Your task to perform on an android device: turn on improve location accuracy Image 0: 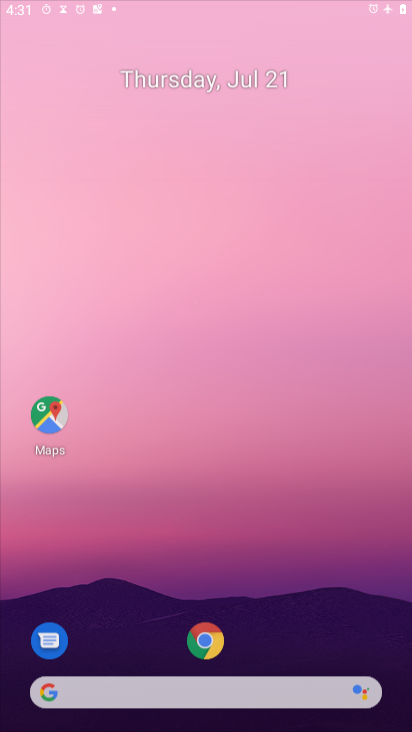
Step 0: press home button
Your task to perform on an android device: turn on improve location accuracy Image 1: 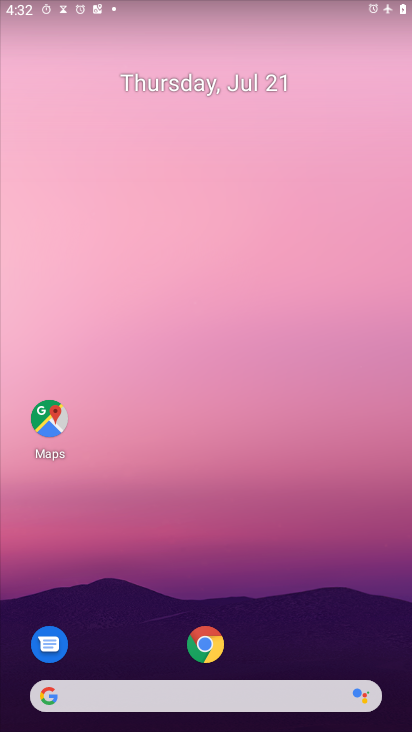
Step 1: drag from (281, 667) to (338, 167)
Your task to perform on an android device: turn on improve location accuracy Image 2: 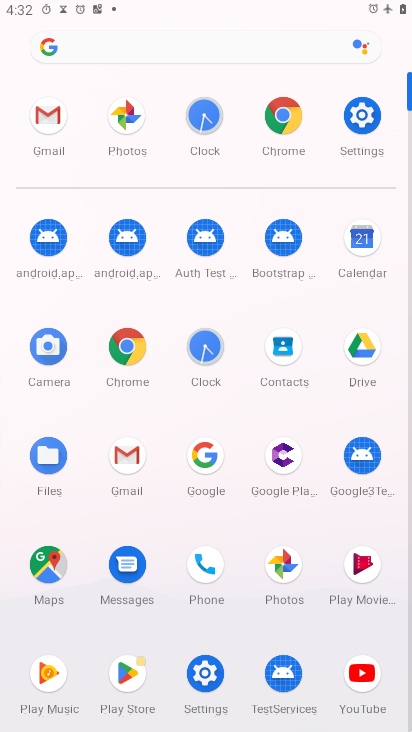
Step 2: click (350, 115)
Your task to perform on an android device: turn on improve location accuracy Image 3: 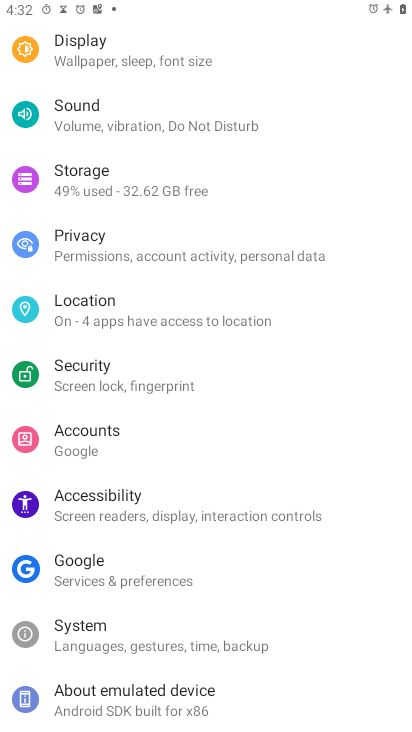
Step 3: click (84, 316)
Your task to perform on an android device: turn on improve location accuracy Image 4: 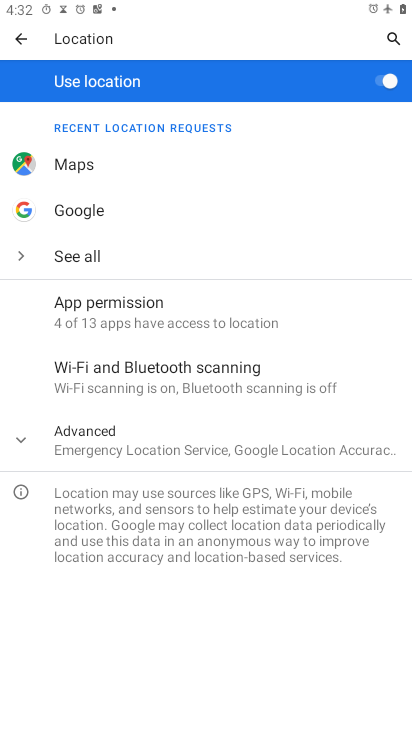
Step 4: click (81, 440)
Your task to perform on an android device: turn on improve location accuracy Image 5: 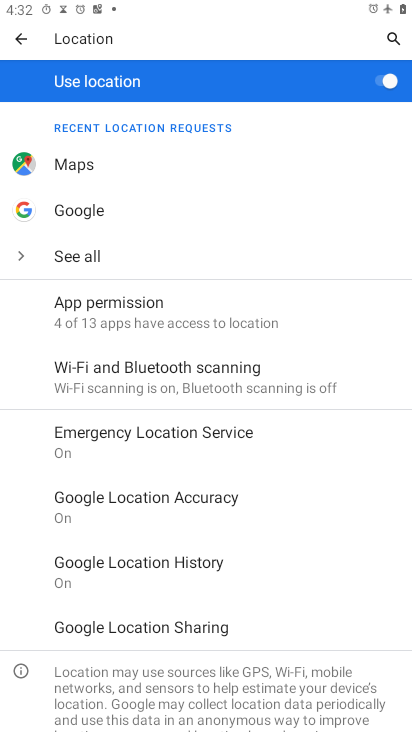
Step 5: click (163, 501)
Your task to perform on an android device: turn on improve location accuracy Image 6: 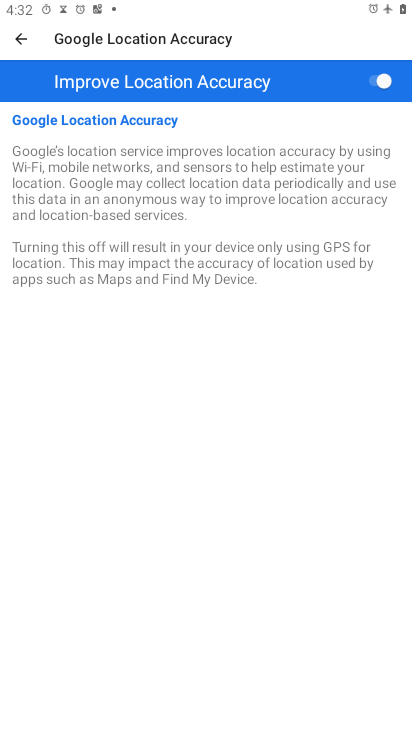
Step 6: task complete